Your task to perform on an android device: turn on javascript in the chrome app Image 0: 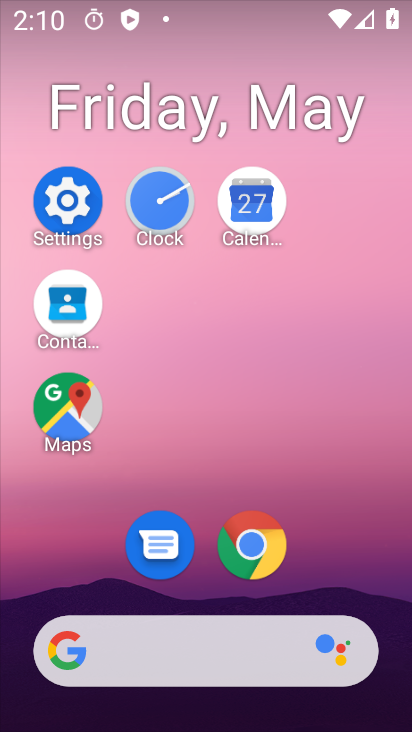
Step 0: click (267, 545)
Your task to perform on an android device: turn on javascript in the chrome app Image 1: 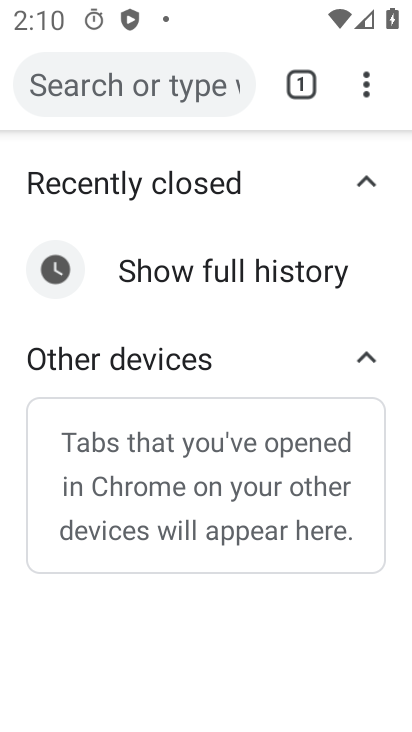
Step 1: click (370, 80)
Your task to perform on an android device: turn on javascript in the chrome app Image 2: 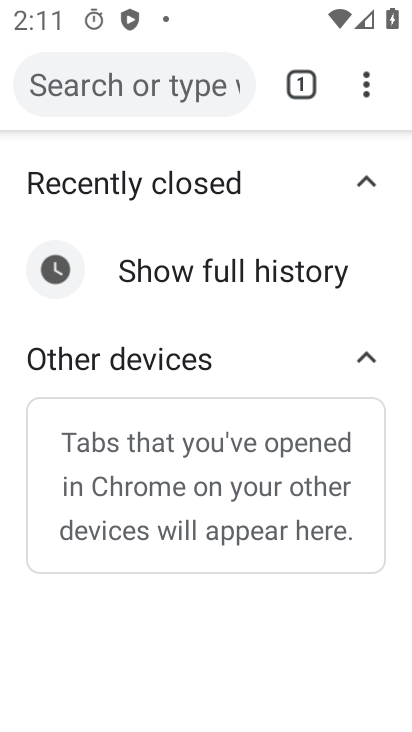
Step 2: click (381, 105)
Your task to perform on an android device: turn on javascript in the chrome app Image 3: 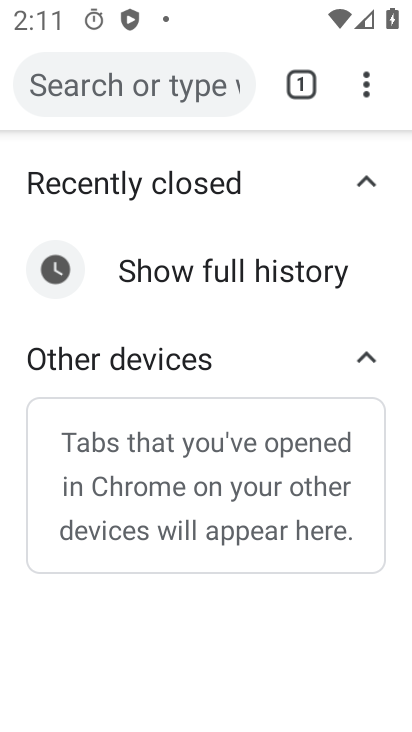
Step 3: click (360, 88)
Your task to perform on an android device: turn on javascript in the chrome app Image 4: 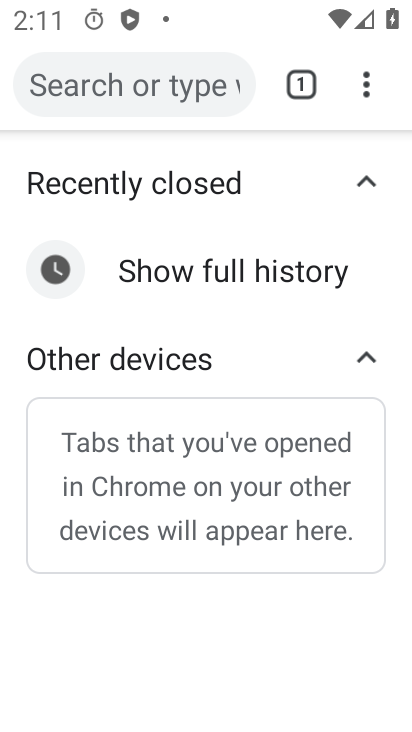
Step 4: click (372, 79)
Your task to perform on an android device: turn on javascript in the chrome app Image 5: 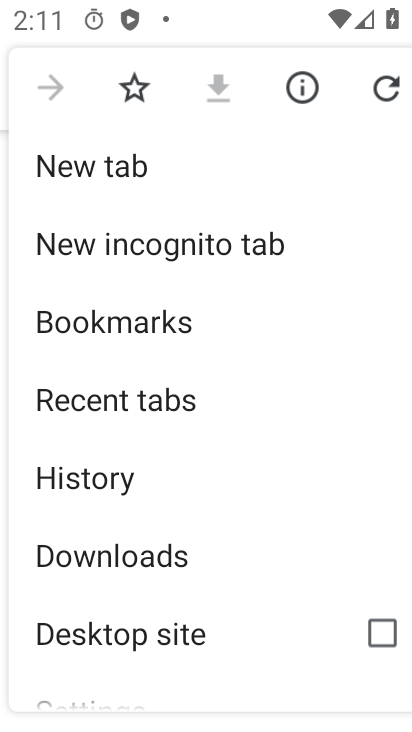
Step 5: drag from (204, 522) to (256, 126)
Your task to perform on an android device: turn on javascript in the chrome app Image 6: 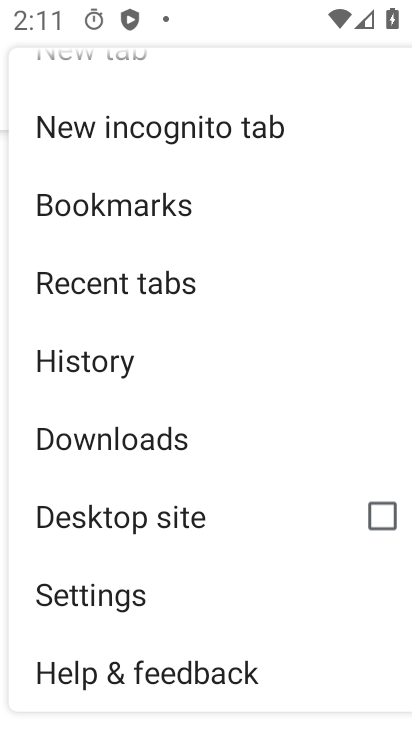
Step 6: click (114, 602)
Your task to perform on an android device: turn on javascript in the chrome app Image 7: 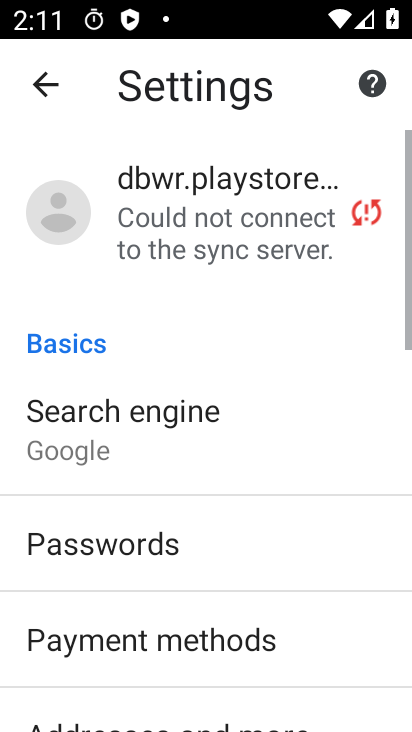
Step 7: drag from (114, 601) to (211, 177)
Your task to perform on an android device: turn on javascript in the chrome app Image 8: 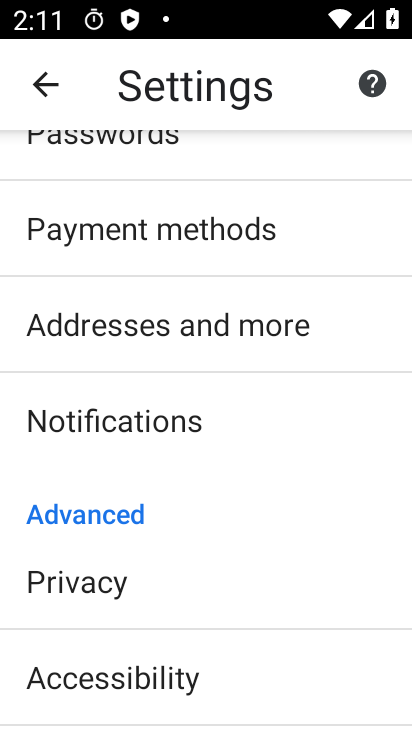
Step 8: drag from (225, 617) to (243, 305)
Your task to perform on an android device: turn on javascript in the chrome app Image 9: 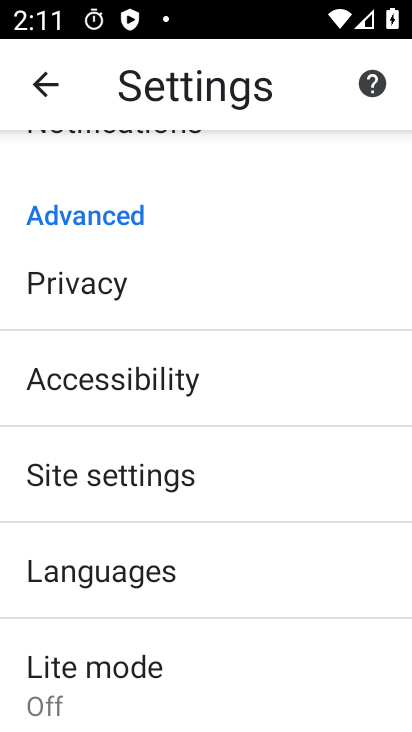
Step 9: click (227, 478)
Your task to perform on an android device: turn on javascript in the chrome app Image 10: 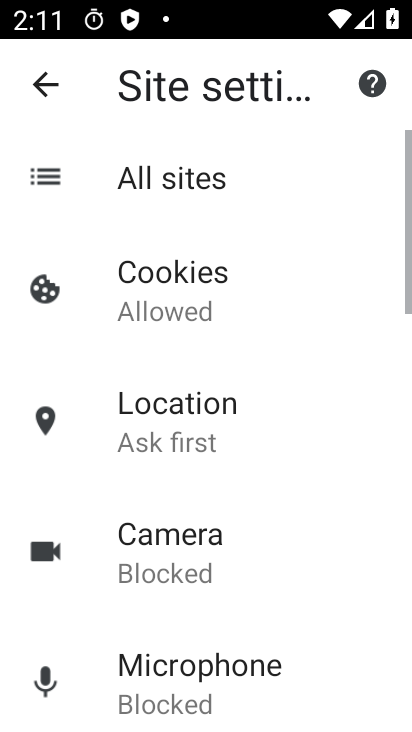
Step 10: drag from (259, 634) to (286, 271)
Your task to perform on an android device: turn on javascript in the chrome app Image 11: 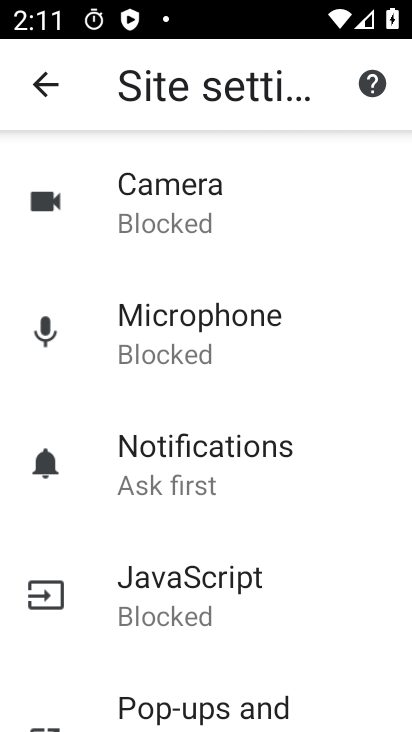
Step 11: click (271, 570)
Your task to perform on an android device: turn on javascript in the chrome app Image 12: 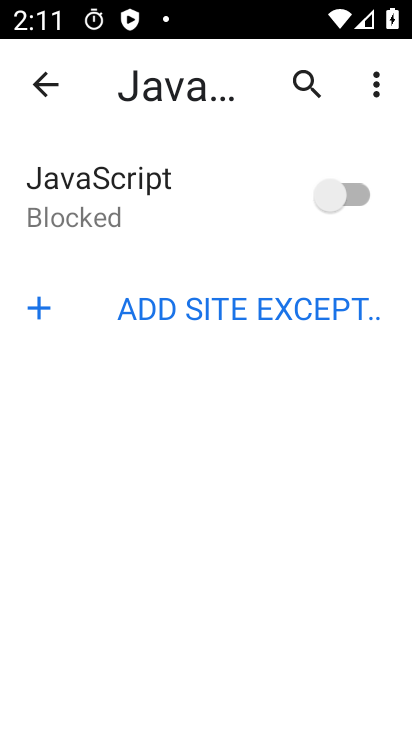
Step 12: click (342, 202)
Your task to perform on an android device: turn on javascript in the chrome app Image 13: 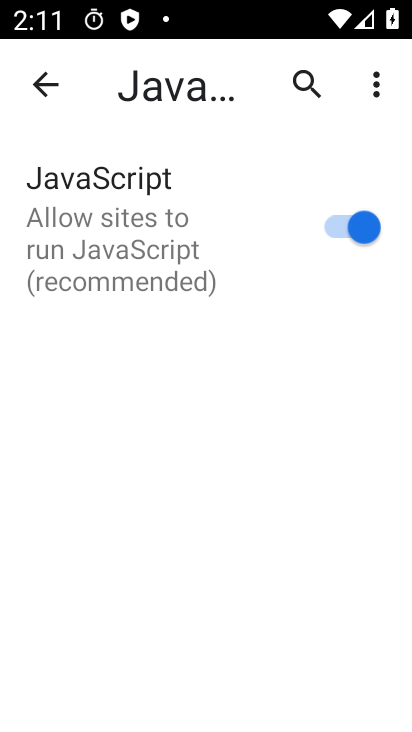
Step 13: task complete